Your task to perform on an android device: Open settings Image 0: 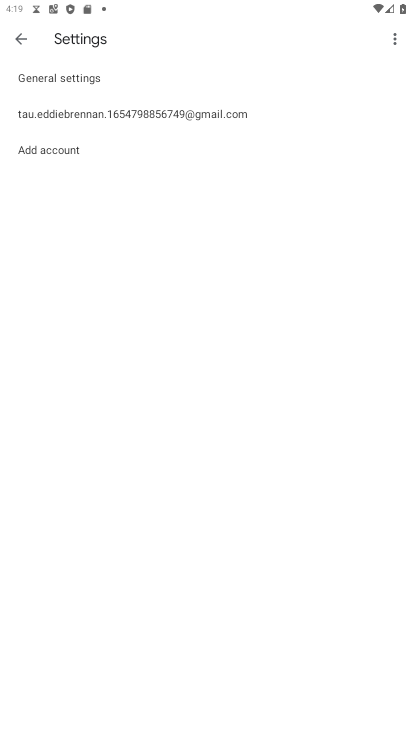
Step 0: press home button
Your task to perform on an android device: Open settings Image 1: 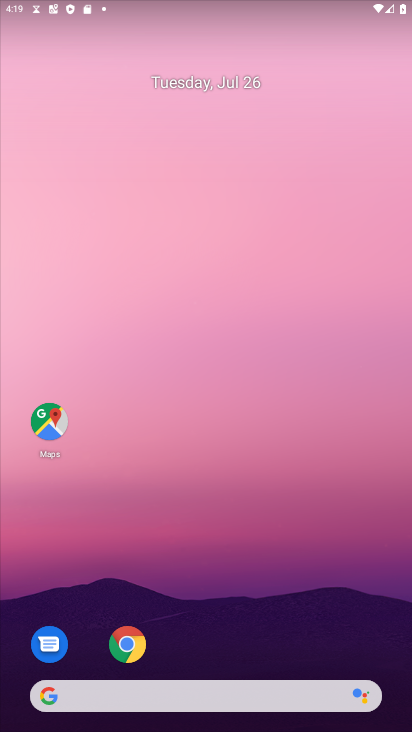
Step 1: drag from (292, 638) to (236, 7)
Your task to perform on an android device: Open settings Image 2: 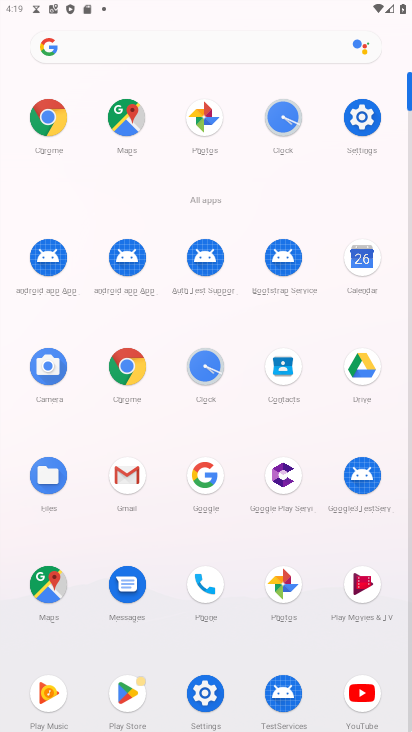
Step 2: click (367, 122)
Your task to perform on an android device: Open settings Image 3: 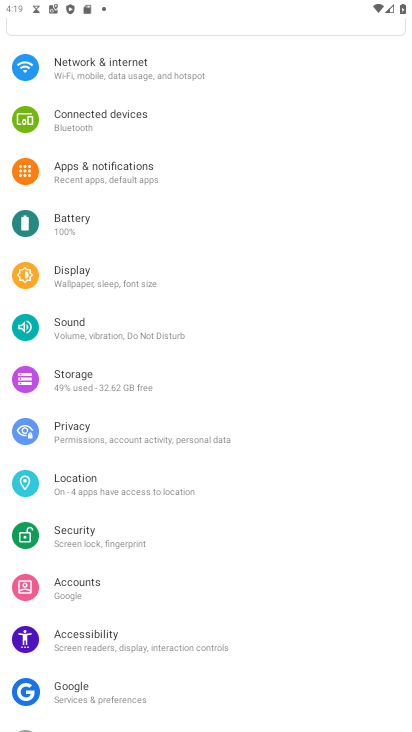
Step 3: task complete